Your task to perform on an android device: Open network settings Image 0: 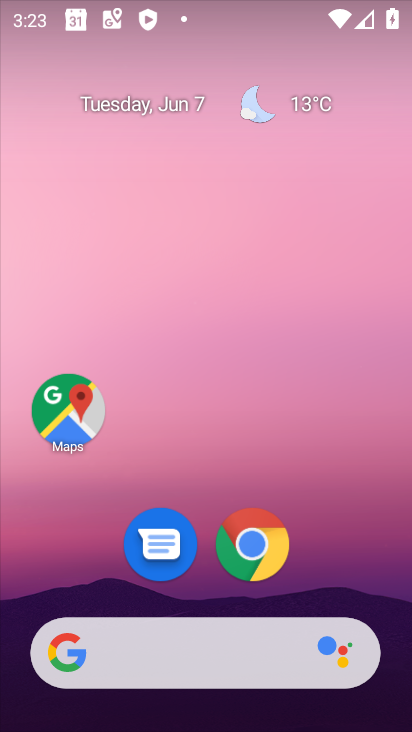
Step 0: press home button
Your task to perform on an android device: Open network settings Image 1: 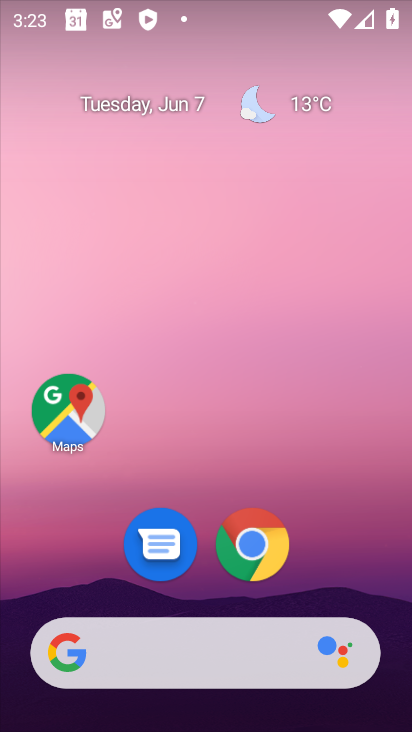
Step 1: drag from (208, 591) to (261, 5)
Your task to perform on an android device: Open network settings Image 2: 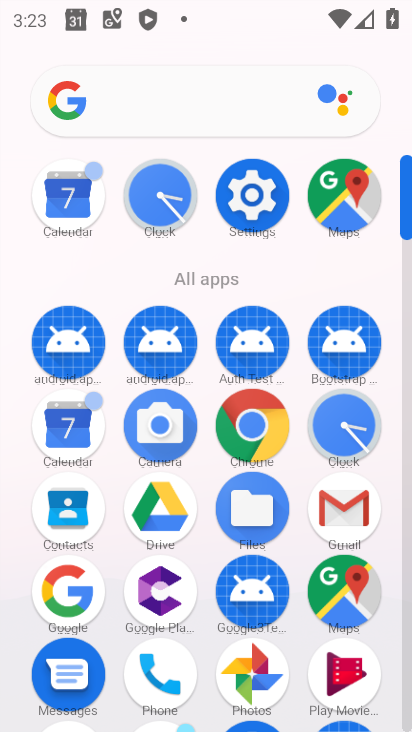
Step 2: click (249, 195)
Your task to perform on an android device: Open network settings Image 3: 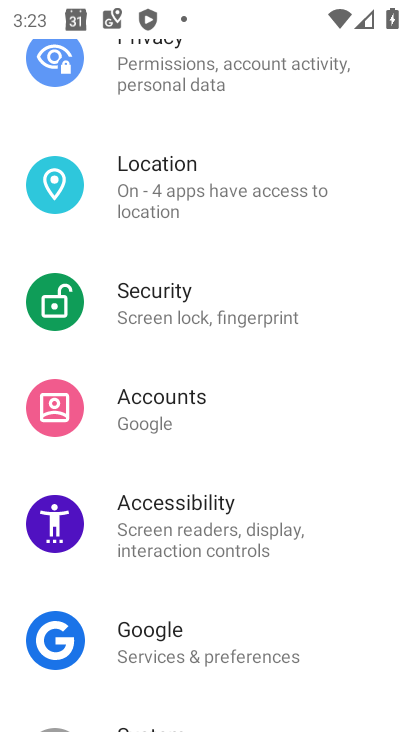
Step 3: drag from (203, 120) to (235, 652)
Your task to perform on an android device: Open network settings Image 4: 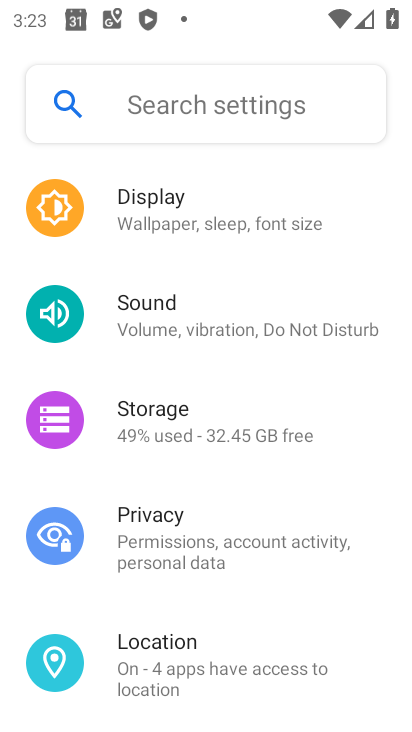
Step 4: drag from (205, 175) to (239, 659)
Your task to perform on an android device: Open network settings Image 5: 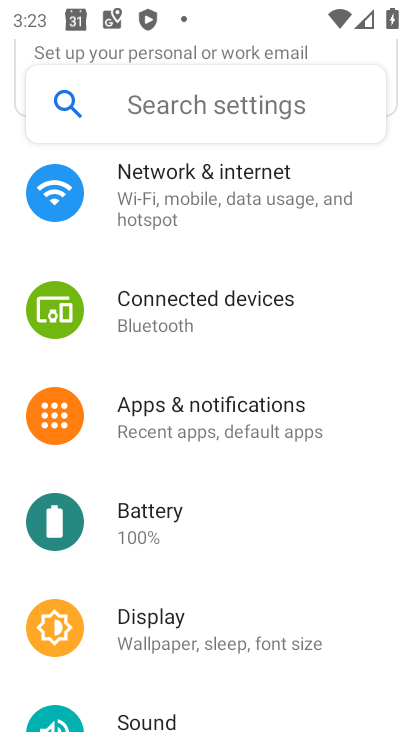
Step 5: click (204, 205)
Your task to perform on an android device: Open network settings Image 6: 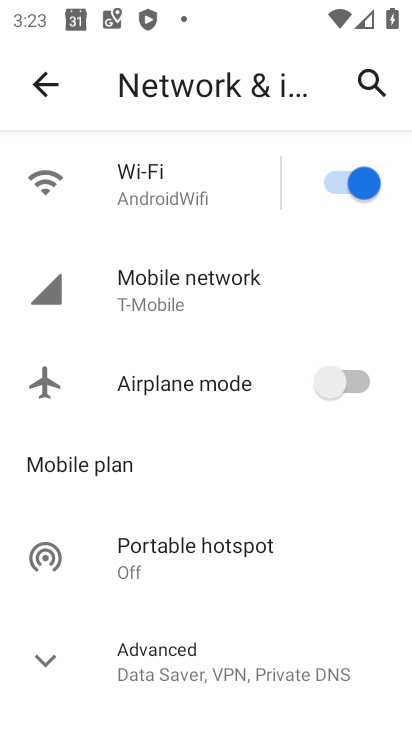
Step 6: click (45, 649)
Your task to perform on an android device: Open network settings Image 7: 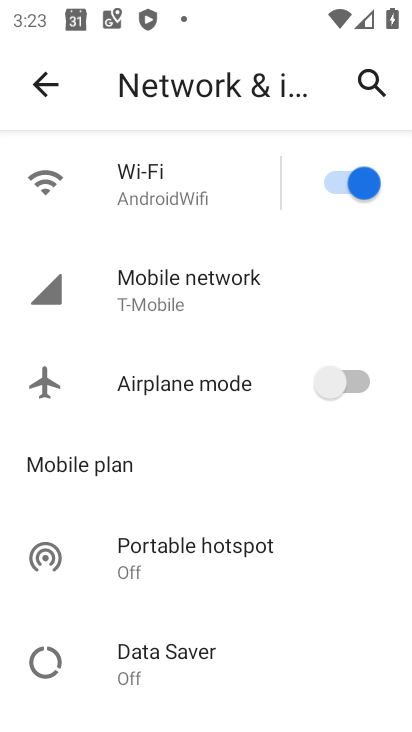
Step 7: drag from (239, 679) to (267, 276)
Your task to perform on an android device: Open network settings Image 8: 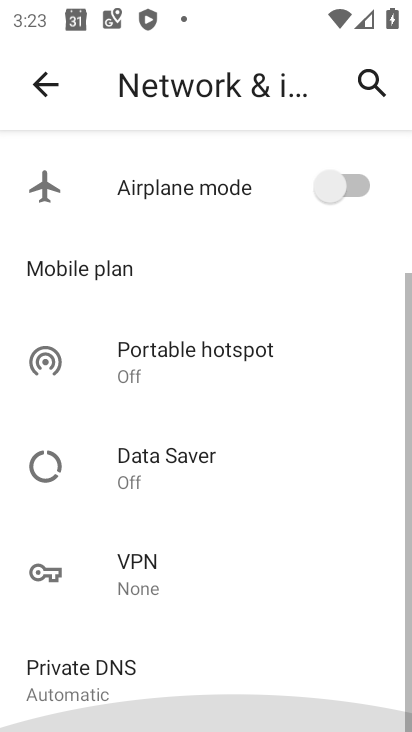
Step 8: click (274, 126)
Your task to perform on an android device: Open network settings Image 9: 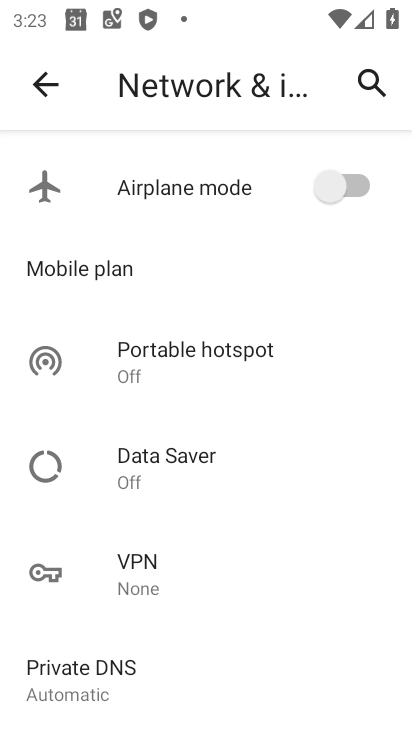
Step 9: task complete